Your task to perform on an android device: Open notification settings Image 0: 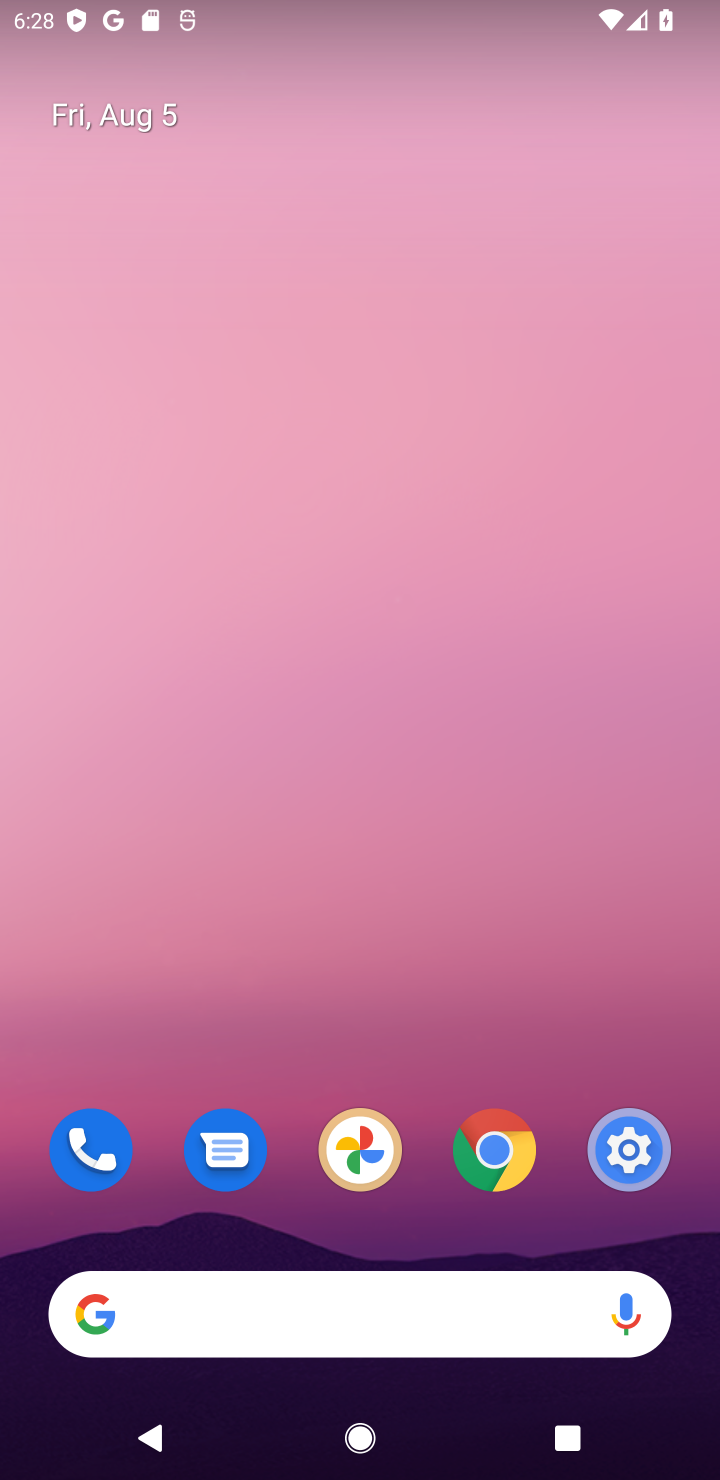
Step 0: drag from (318, 1035) to (288, 443)
Your task to perform on an android device: Open notification settings Image 1: 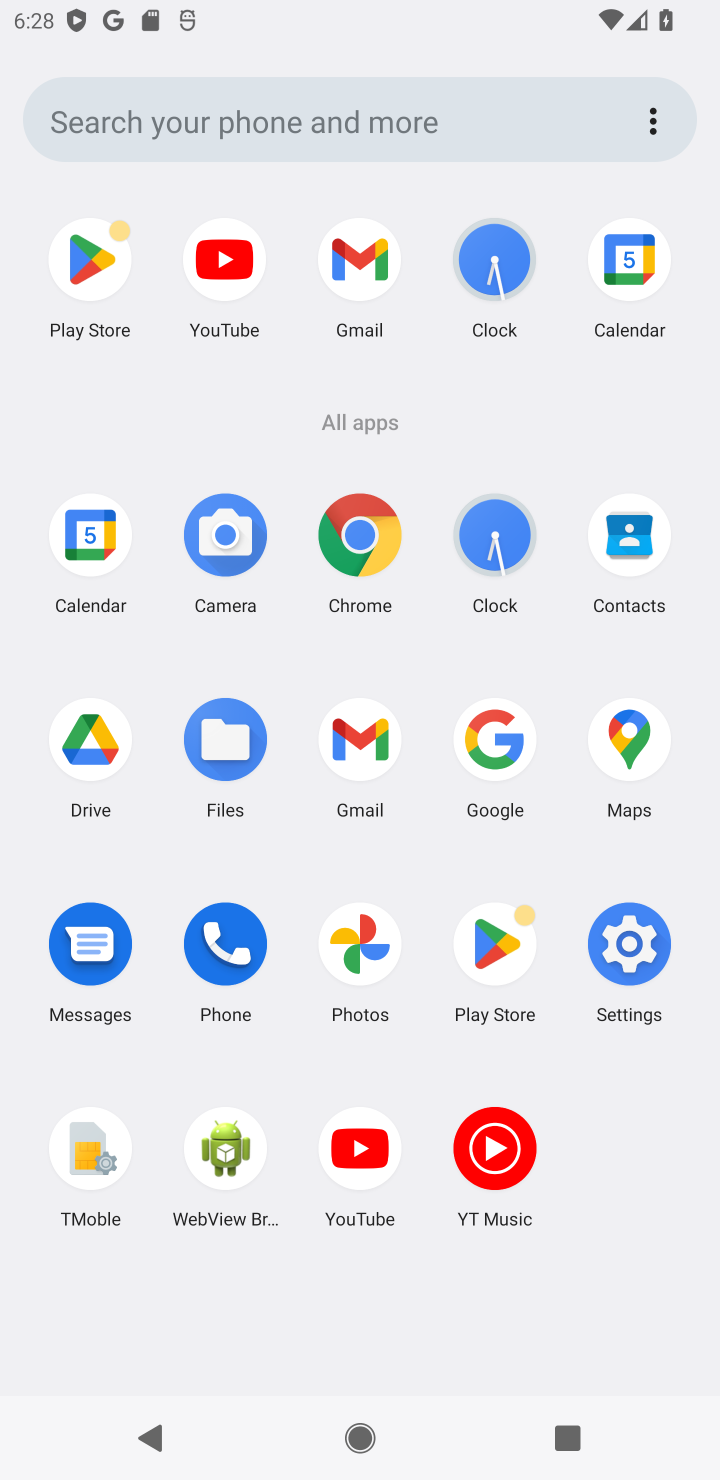
Step 1: click (633, 961)
Your task to perform on an android device: Open notification settings Image 2: 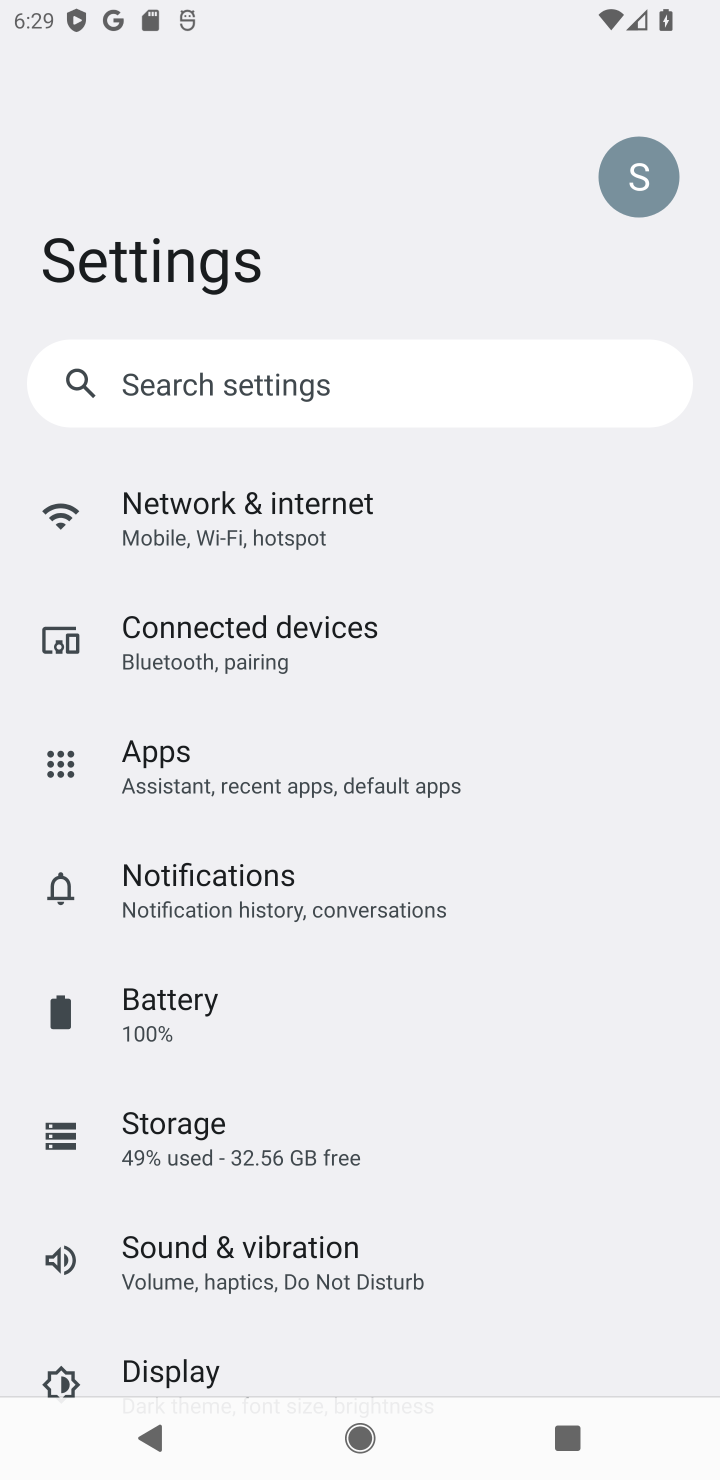
Step 2: drag from (391, 1128) to (362, 758)
Your task to perform on an android device: Open notification settings Image 3: 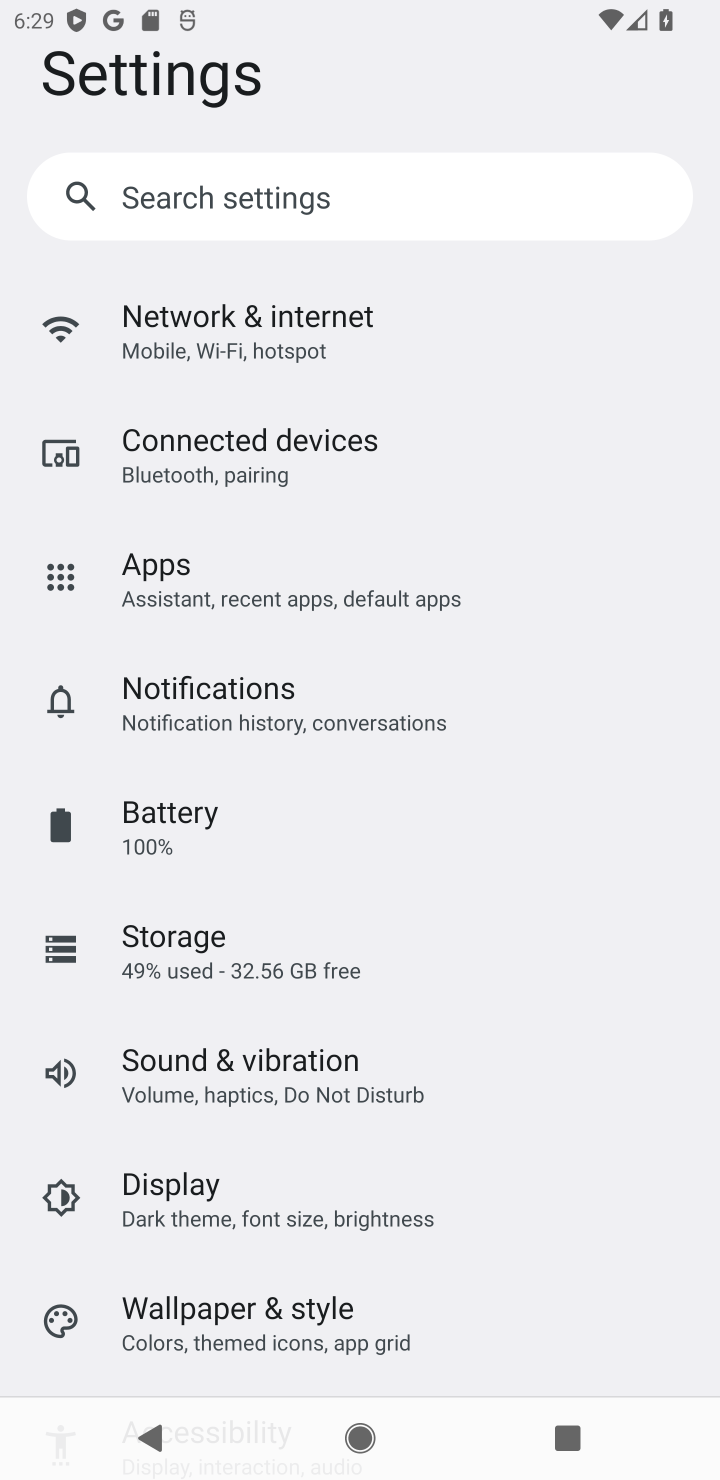
Step 3: drag from (321, 1133) to (286, 736)
Your task to perform on an android device: Open notification settings Image 4: 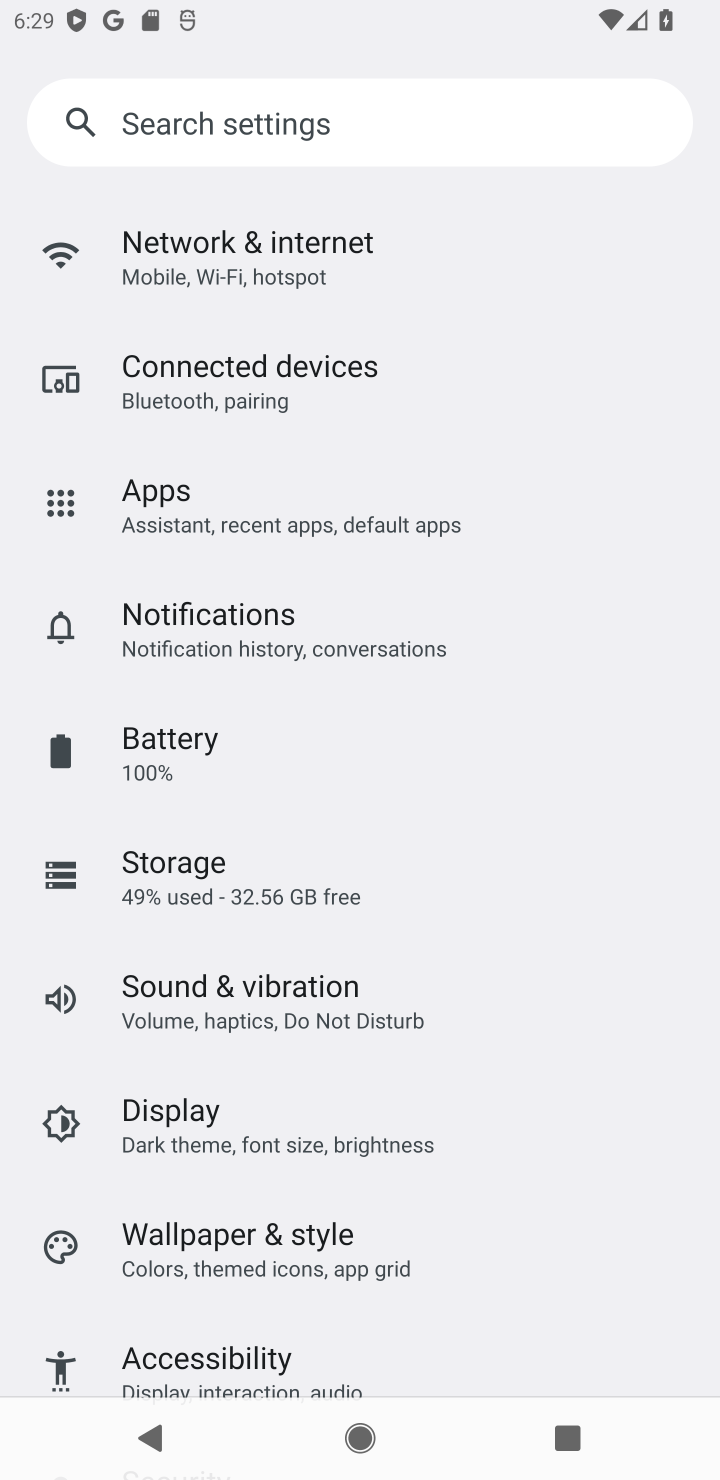
Step 4: click (340, 645)
Your task to perform on an android device: Open notification settings Image 5: 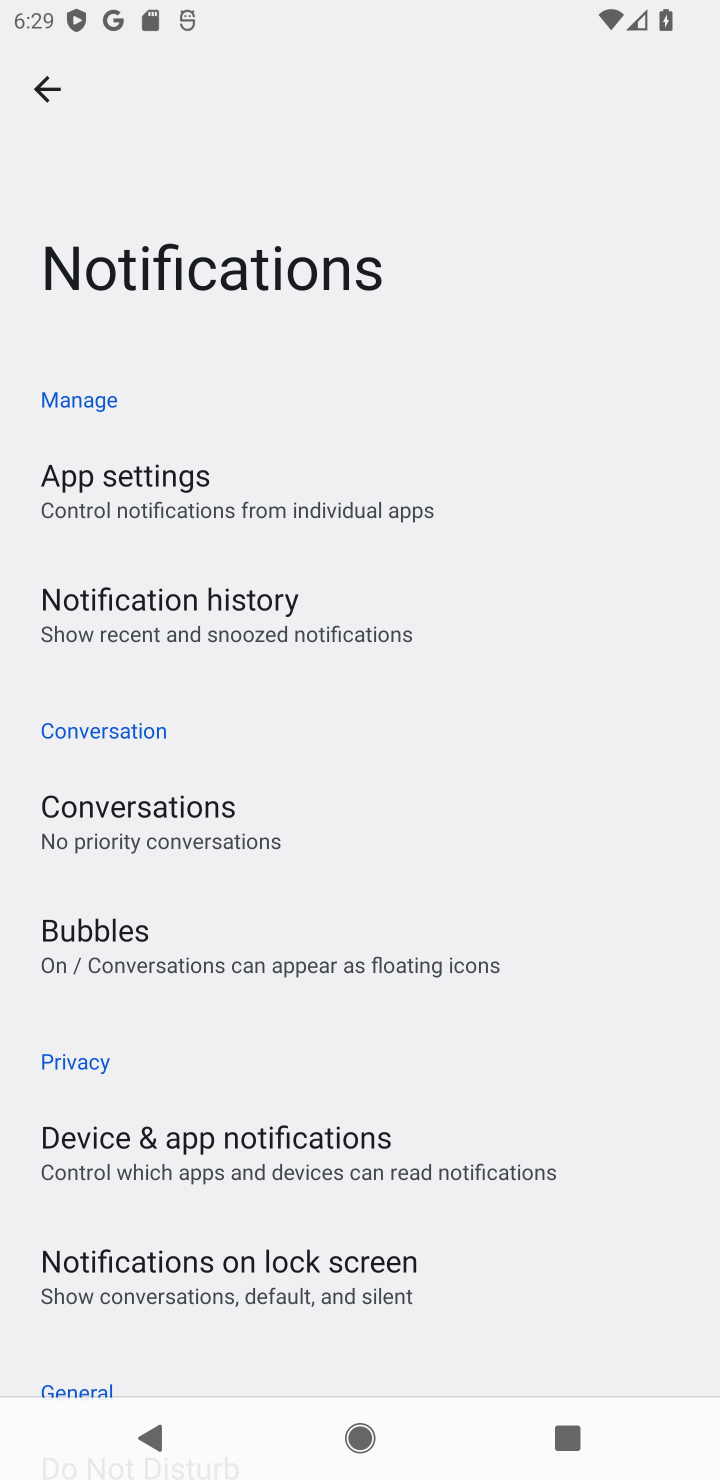
Step 5: task complete